Your task to perform on an android device: open app "Instagram" (install if not already installed) and enter user name: "nobler@yahoo.com" and password: "foraging" Image 0: 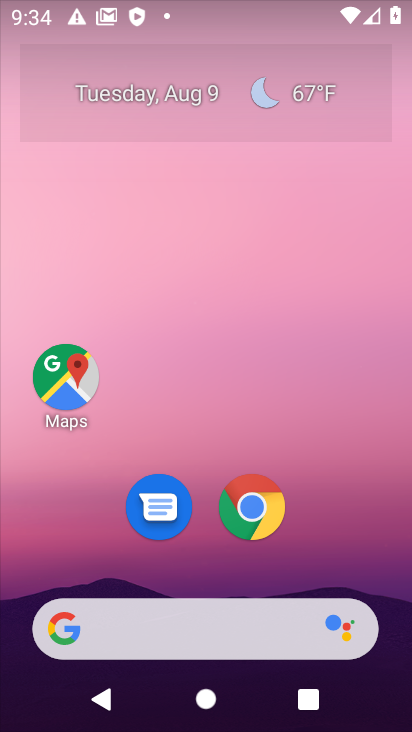
Step 0: drag from (147, 676) to (148, 78)
Your task to perform on an android device: open app "Instagram" (install if not already installed) and enter user name: "nobler@yahoo.com" and password: "foraging" Image 1: 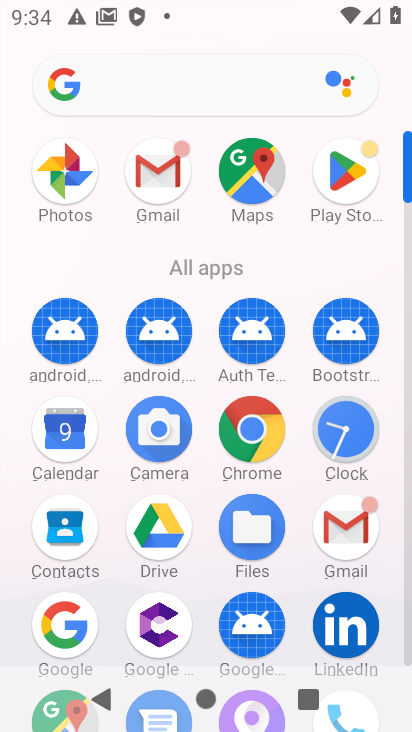
Step 1: click (331, 187)
Your task to perform on an android device: open app "Instagram" (install if not already installed) and enter user name: "nobler@yahoo.com" and password: "foraging" Image 2: 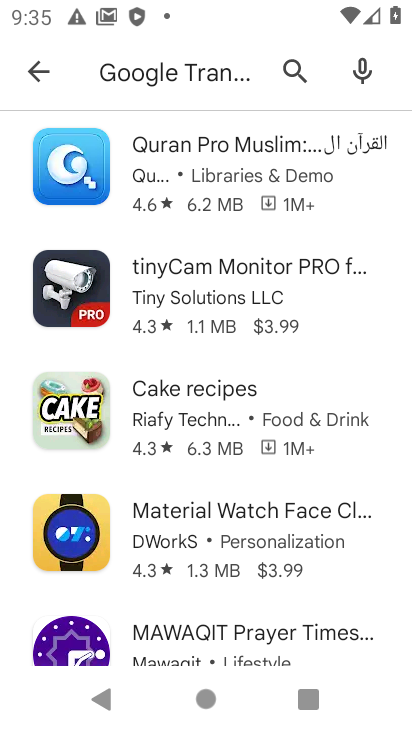
Step 2: click (289, 65)
Your task to perform on an android device: open app "Instagram" (install if not already installed) and enter user name: "nobler@yahoo.com" and password: "foraging" Image 3: 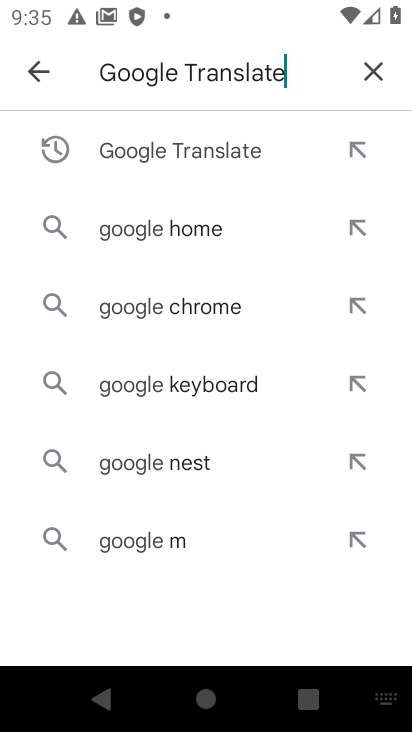
Step 3: click (359, 68)
Your task to perform on an android device: open app "Instagram" (install if not already installed) and enter user name: "nobler@yahoo.com" and password: "foraging" Image 4: 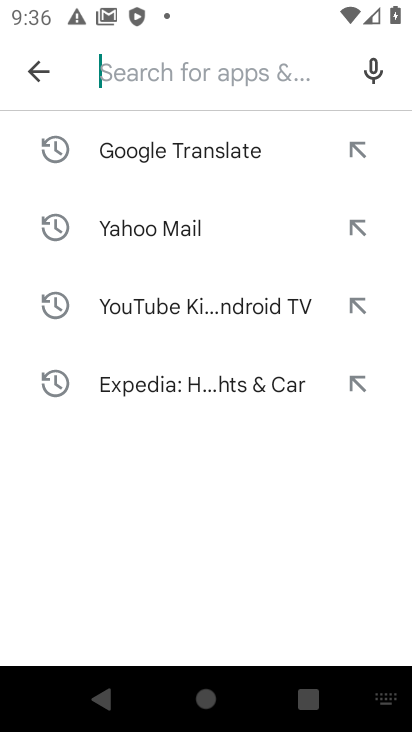
Step 4: type "Instagram"
Your task to perform on an android device: open app "Instagram" (install if not already installed) and enter user name: "nobler@yahoo.com" and password: "foraging" Image 5: 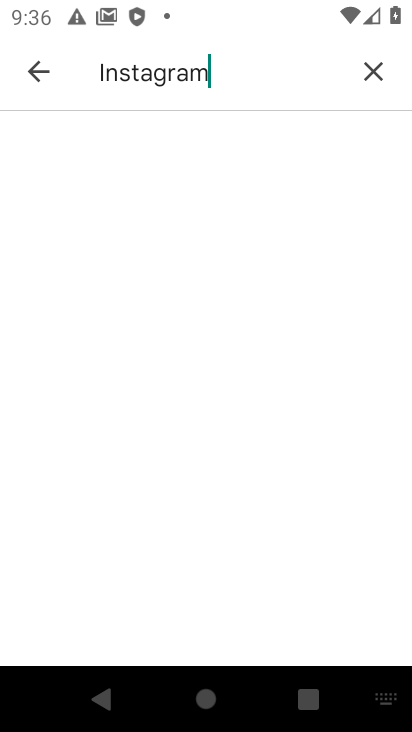
Step 5: press enter
Your task to perform on an android device: open app "Instagram" (install if not already installed) and enter user name: "nobler@yahoo.com" and password: "foraging" Image 6: 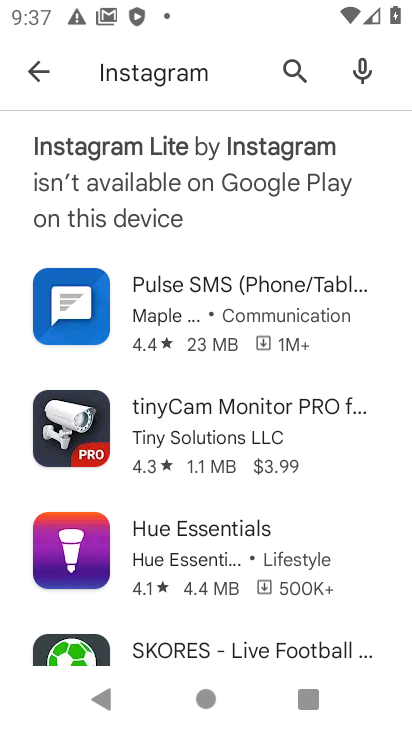
Step 6: task complete